Your task to perform on an android device: Clear the cart on walmart.com. Image 0: 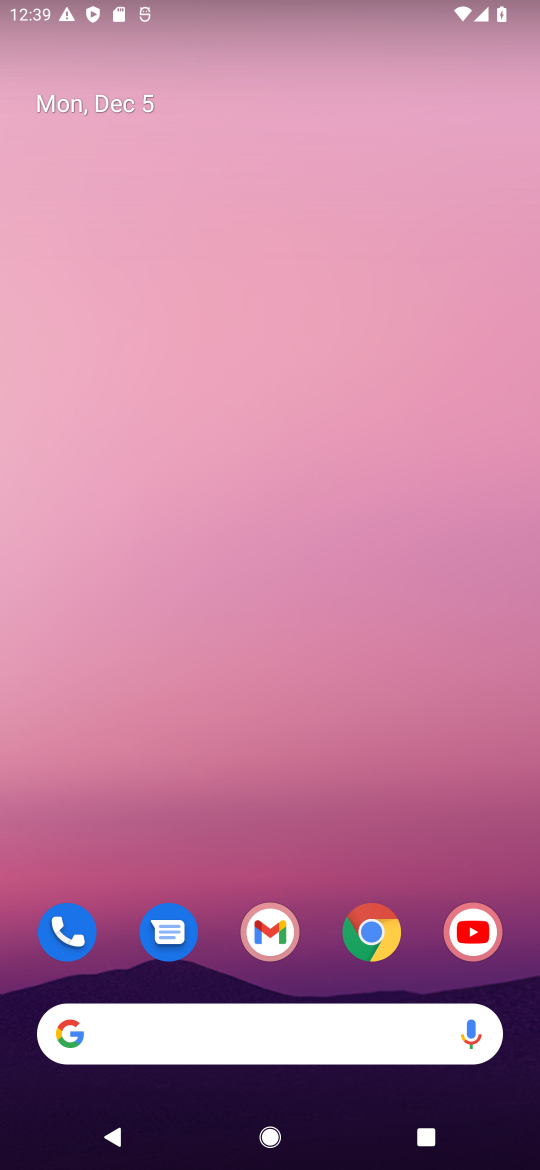
Step 0: click (376, 930)
Your task to perform on an android device: Clear the cart on walmart.com. Image 1: 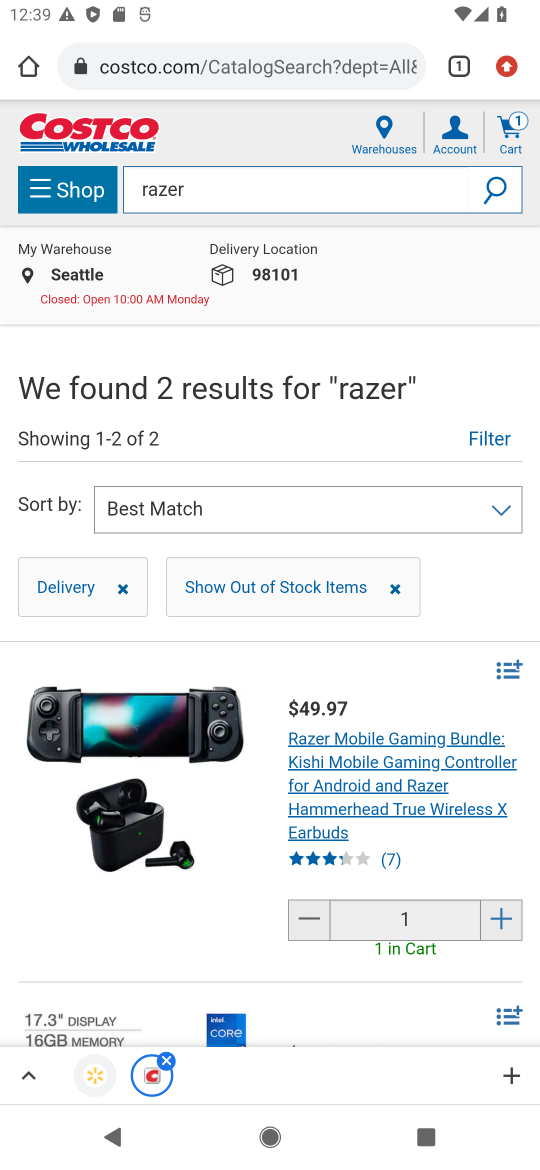
Step 1: click (216, 63)
Your task to perform on an android device: Clear the cart on walmart.com. Image 2: 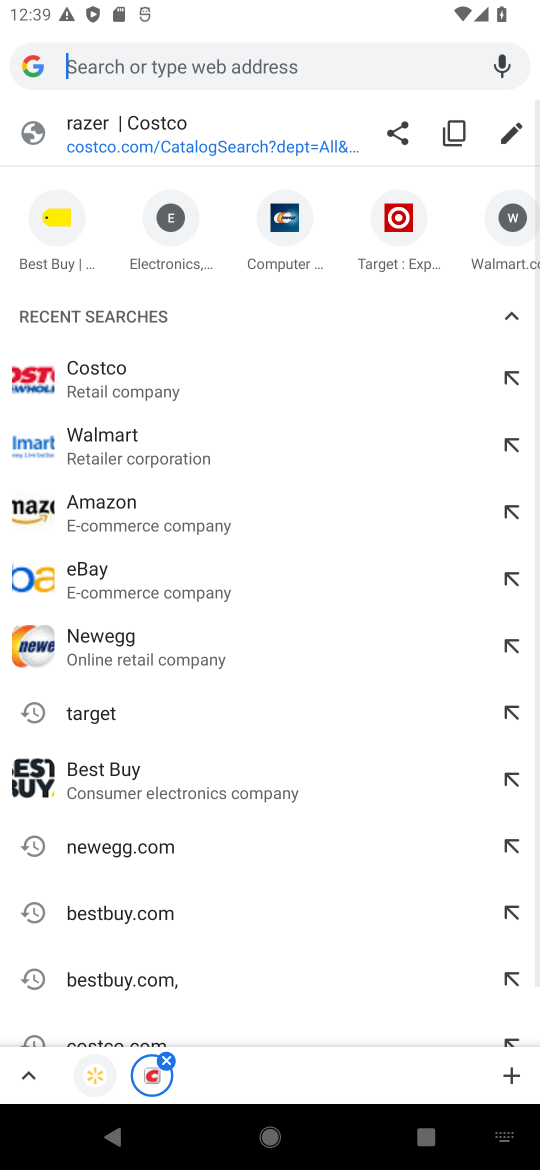
Step 2: click (156, 441)
Your task to perform on an android device: Clear the cart on walmart.com. Image 3: 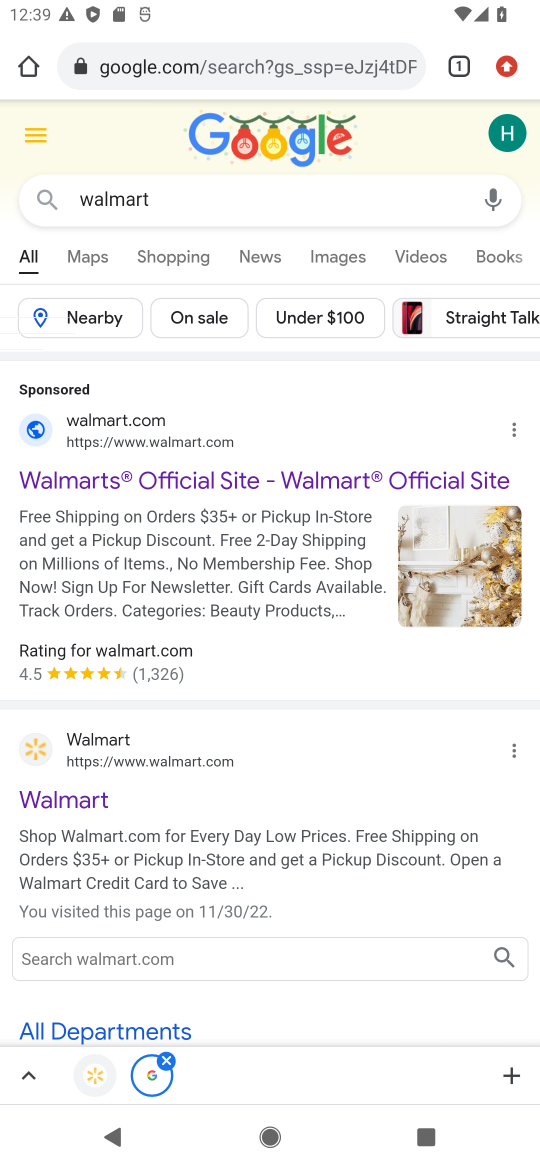
Step 3: click (177, 479)
Your task to perform on an android device: Clear the cart on walmart.com. Image 4: 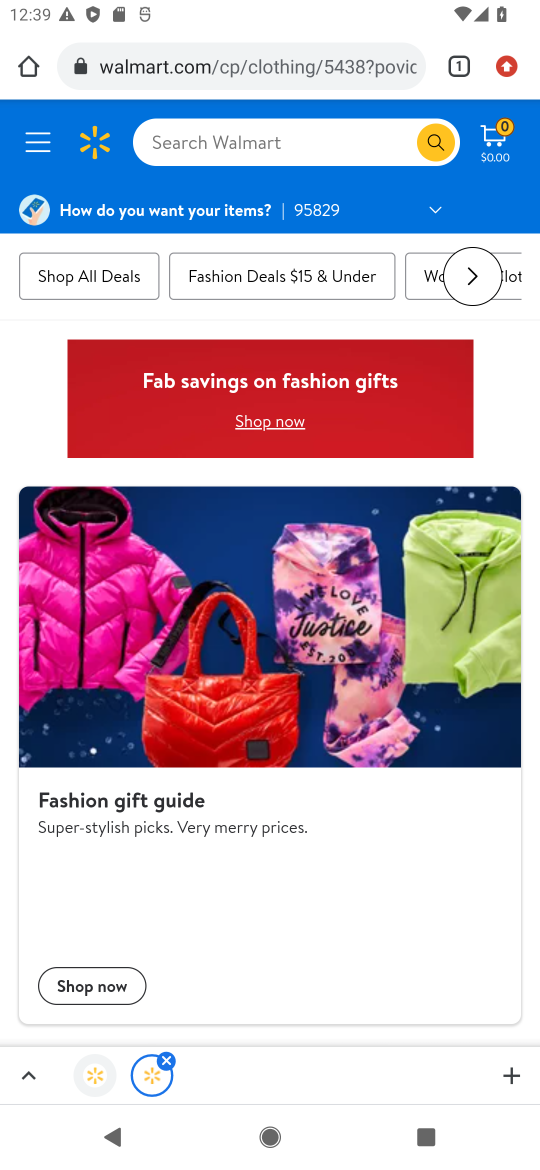
Step 4: click (489, 131)
Your task to perform on an android device: Clear the cart on walmart.com. Image 5: 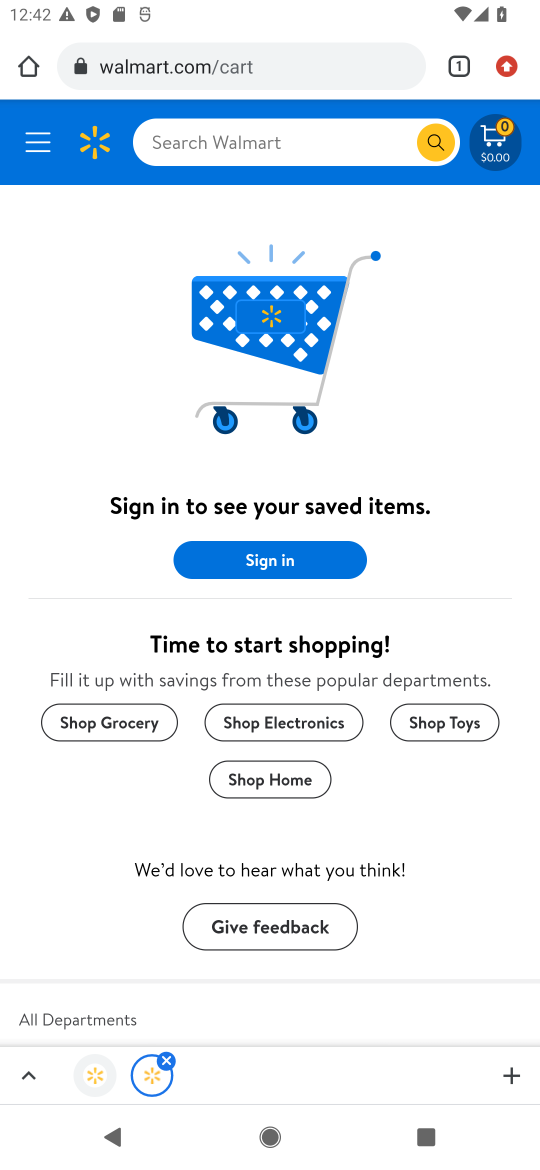
Step 5: task complete